Your task to perform on an android device: open app "AliExpress" (install if not already installed) and go to login screen Image 0: 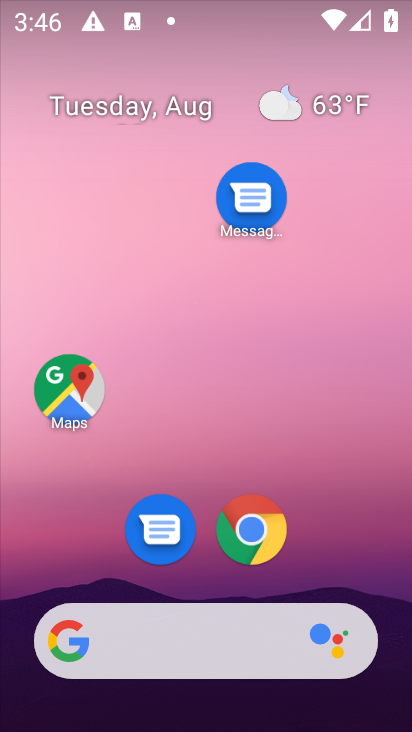
Step 0: drag from (163, 471) to (148, 61)
Your task to perform on an android device: open app "AliExpress" (install if not already installed) and go to login screen Image 1: 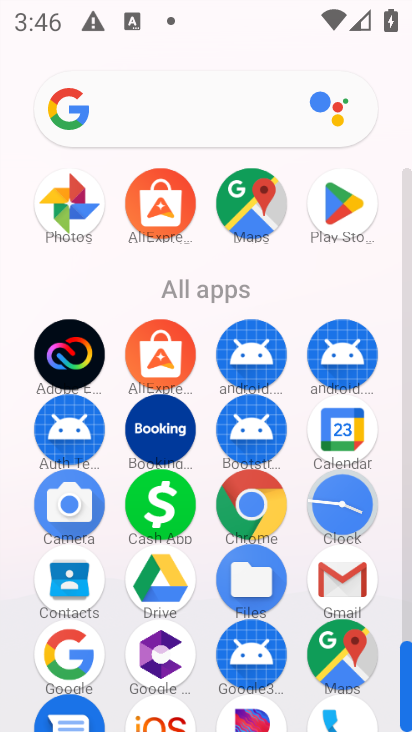
Step 1: click (325, 203)
Your task to perform on an android device: open app "AliExpress" (install if not already installed) and go to login screen Image 2: 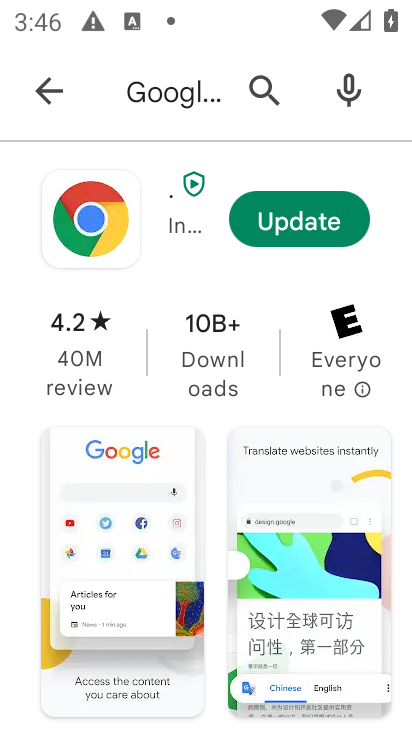
Step 2: press back button
Your task to perform on an android device: open app "AliExpress" (install if not already installed) and go to login screen Image 3: 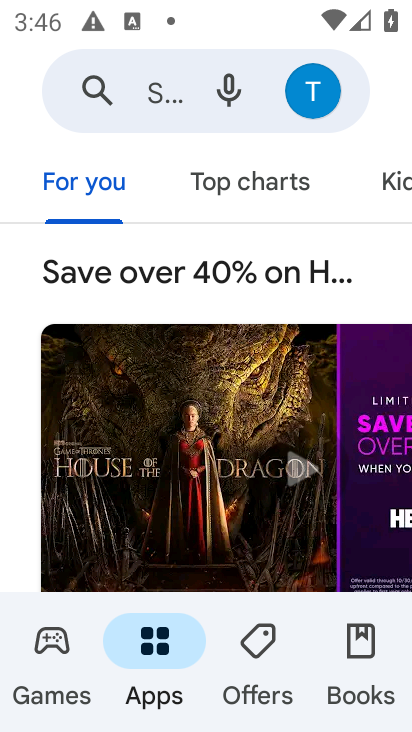
Step 3: click (173, 93)
Your task to perform on an android device: open app "AliExpress" (install if not already installed) and go to login screen Image 4: 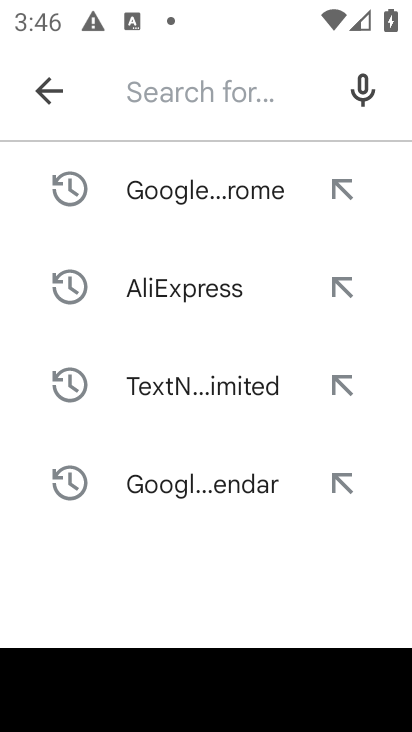
Step 4: type "AliExpress"
Your task to perform on an android device: open app "AliExpress" (install if not already installed) and go to login screen Image 5: 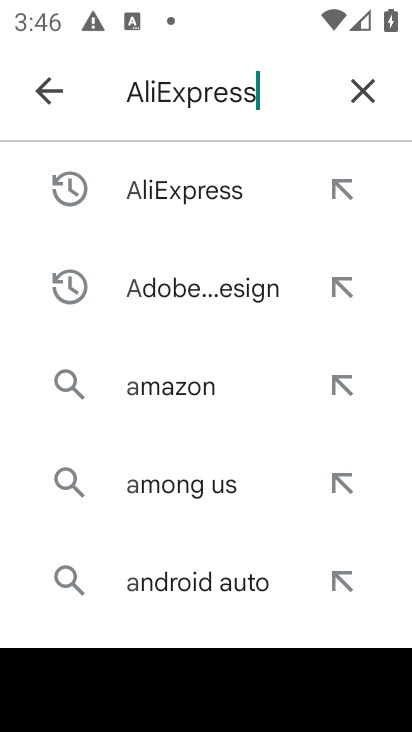
Step 5: press enter
Your task to perform on an android device: open app "AliExpress" (install if not already installed) and go to login screen Image 6: 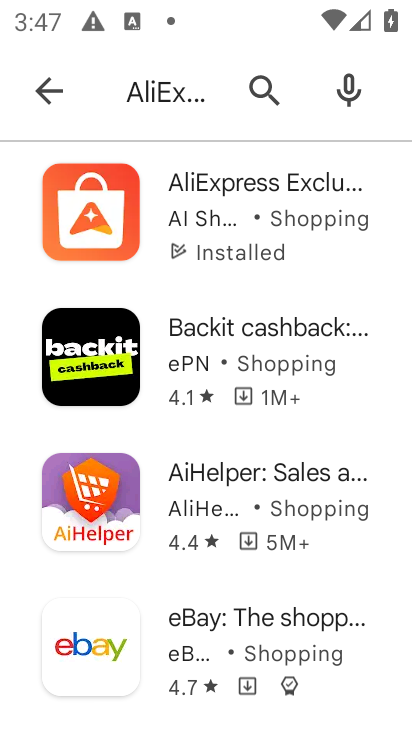
Step 6: click (173, 213)
Your task to perform on an android device: open app "AliExpress" (install if not already installed) and go to login screen Image 7: 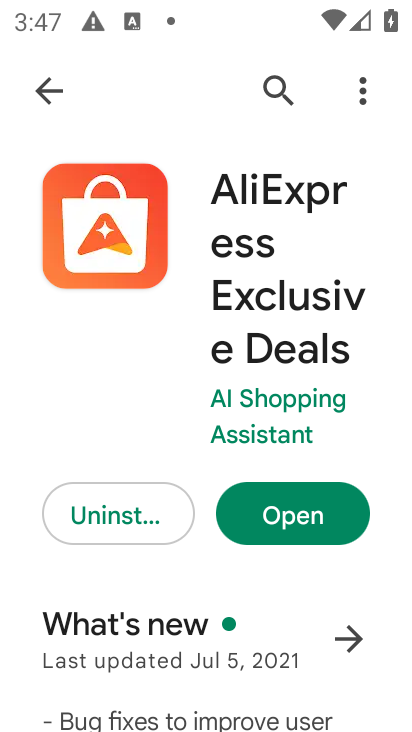
Step 7: click (320, 493)
Your task to perform on an android device: open app "AliExpress" (install if not already installed) and go to login screen Image 8: 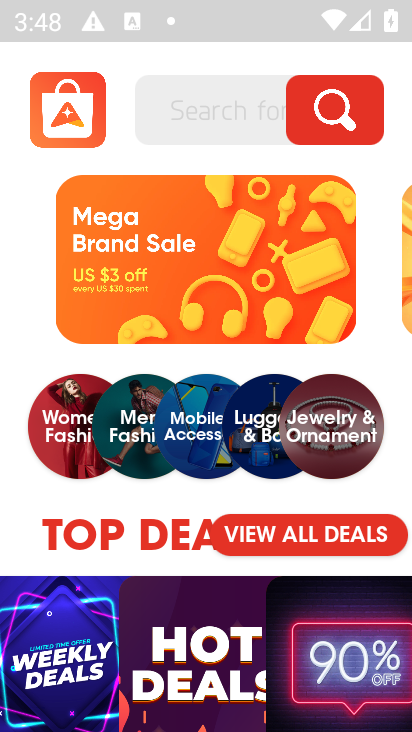
Step 8: task complete